Your task to perform on an android device: turn off notifications in google photos Image 0: 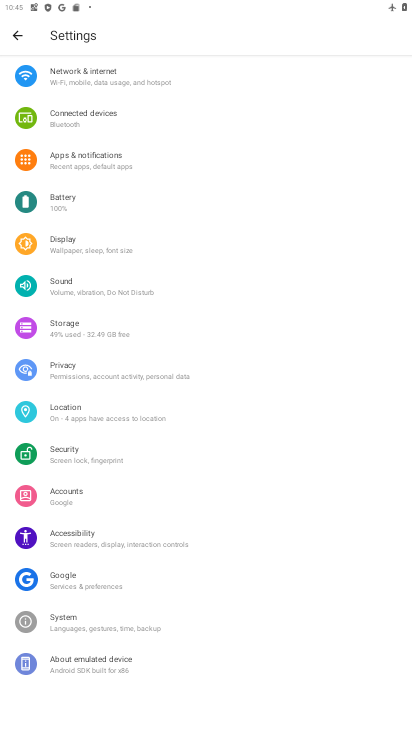
Step 0: press home button
Your task to perform on an android device: turn off notifications in google photos Image 1: 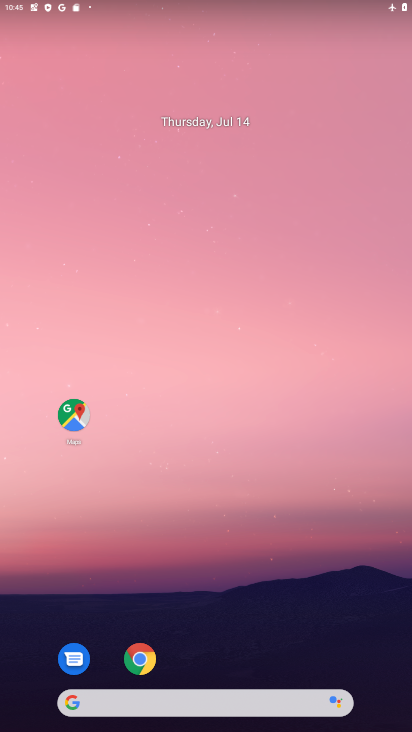
Step 1: drag from (337, 596) to (209, 109)
Your task to perform on an android device: turn off notifications in google photos Image 2: 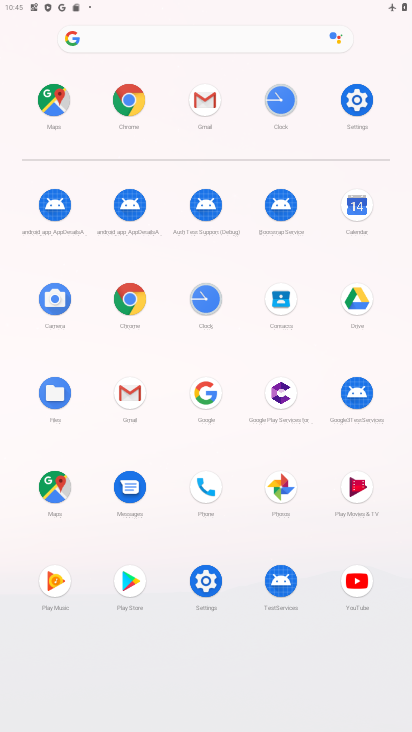
Step 2: click (286, 495)
Your task to perform on an android device: turn off notifications in google photos Image 3: 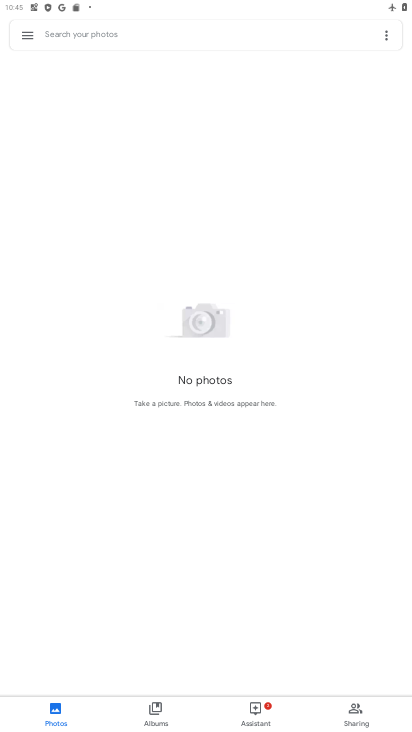
Step 3: click (25, 42)
Your task to perform on an android device: turn off notifications in google photos Image 4: 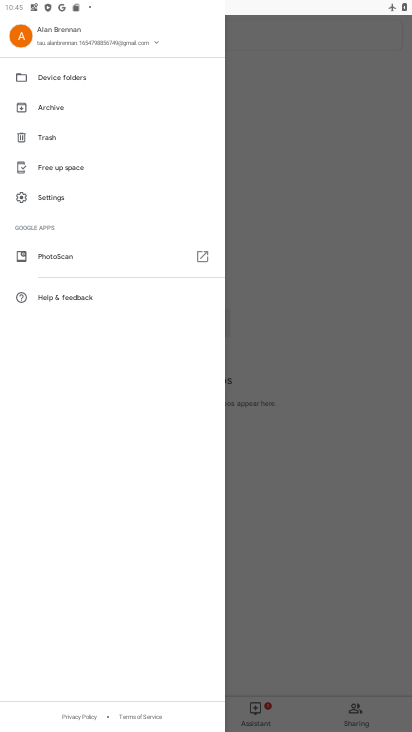
Step 4: click (43, 206)
Your task to perform on an android device: turn off notifications in google photos Image 5: 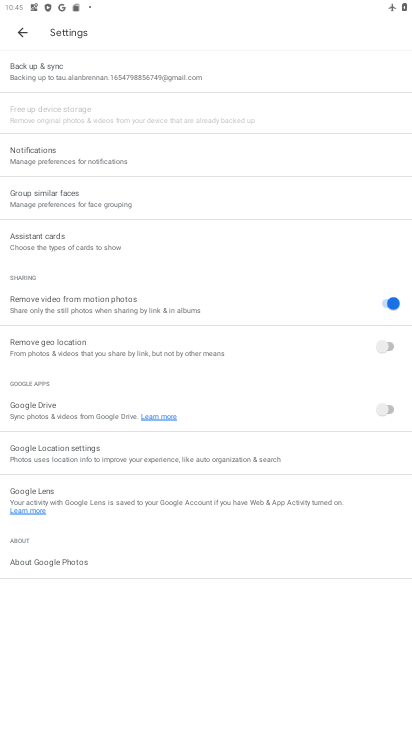
Step 5: click (74, 158)
Your task to perform on an android device: turn off notifications in google photos Image 6: 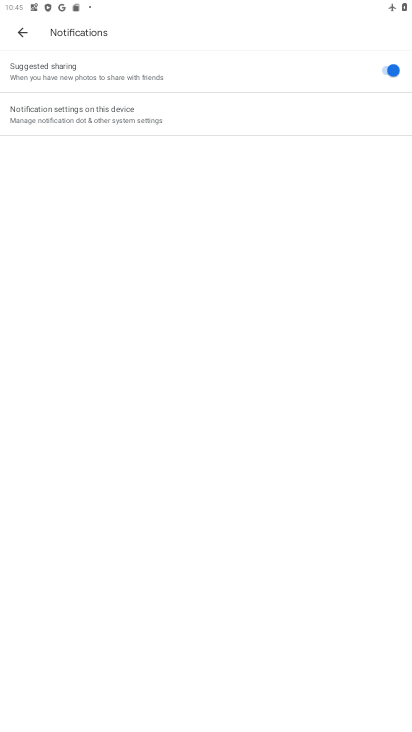
Step 6: click (375, 70)
Your task to perform on an android device: turn off notifications in google photos Image 7: 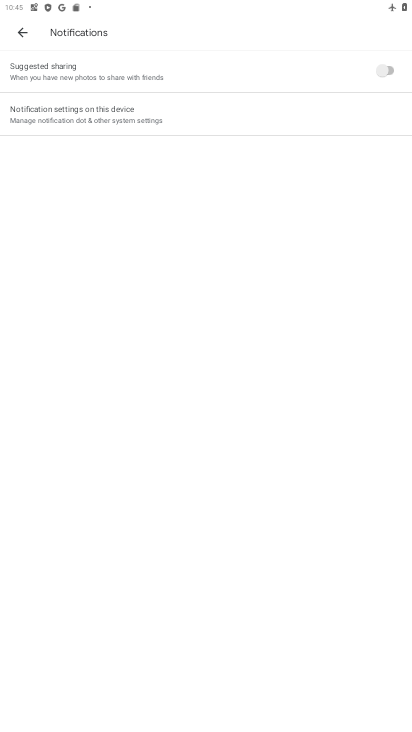
Step 7: task complete